Your task to perform on an android device: change timer sound Image 0: 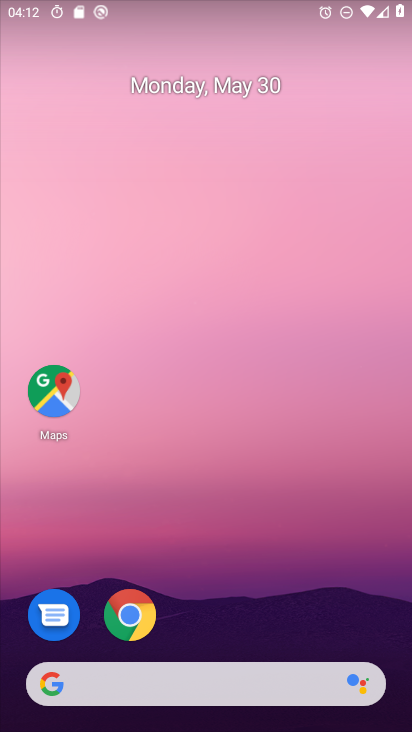
Step 0: drag from (291, 643) to (270, 58)
Your task to perform on an android device: change timer sound Image 1: 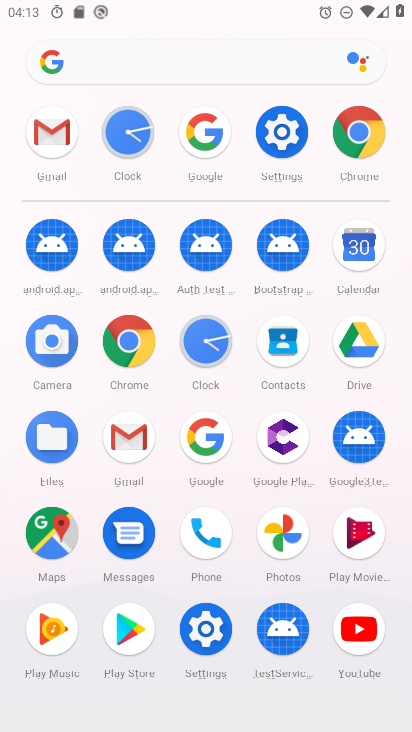
Step 1: click (128, 133)
Your task to perform on an android device: change timer sound Image 2: 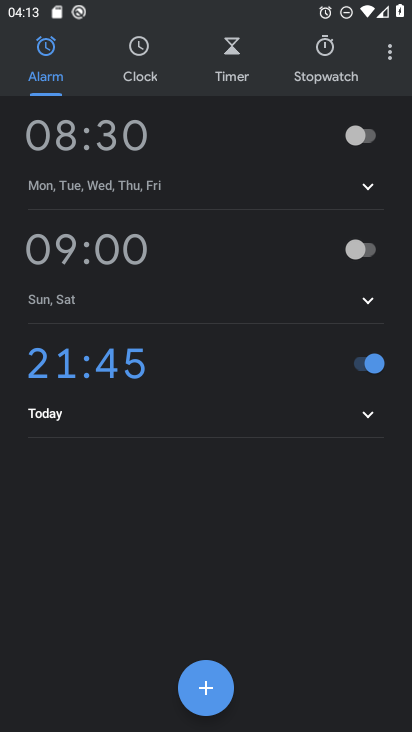
Step 2: click (390, 55)
Your task to perform on an android device: change timer sound Image 3: 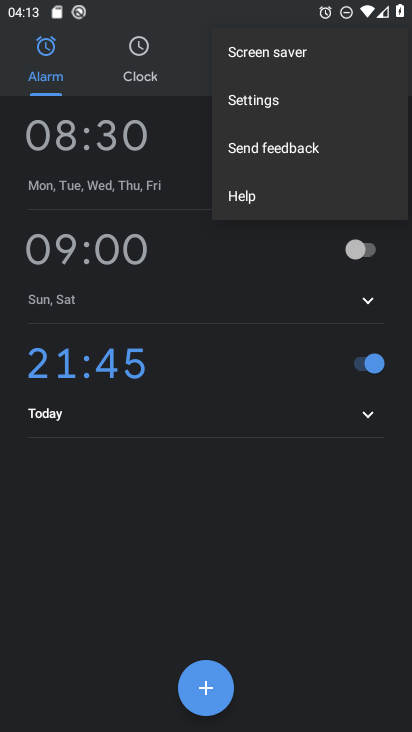
Step 3: click (268, 103)
Your task to perform on an android device: change timer sound Image 4: 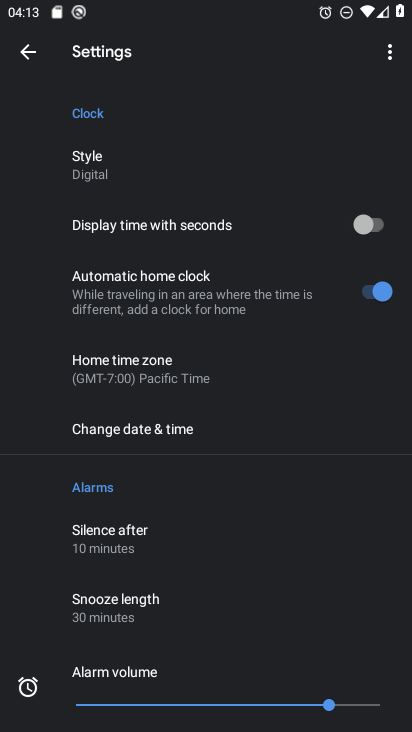
Step 4: drag from (192, 521) to (191, 341)
Your task to perform on an android device: change timer sound Image 5: 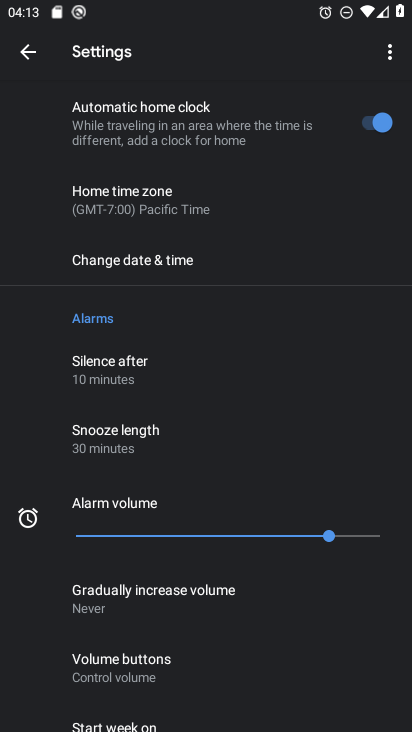
Step 5: drag from (152, 557) to (202, 362)
Your task to perform on an android device: change timer sound Image 6: 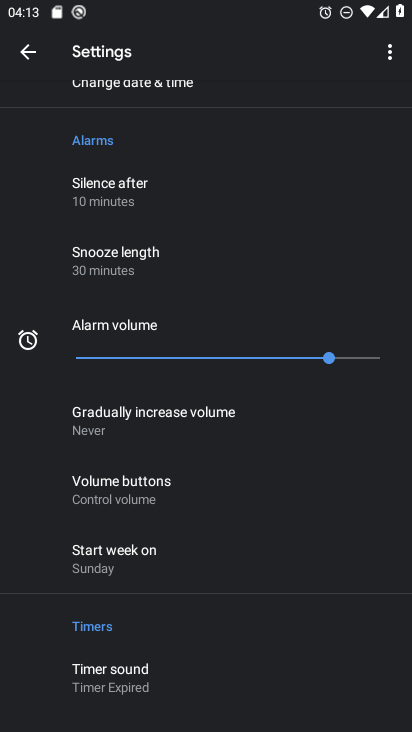
Step 6: drag from (178, 529) to (202, 342)
Your task to perform on an android device: change timer sound Image 7: 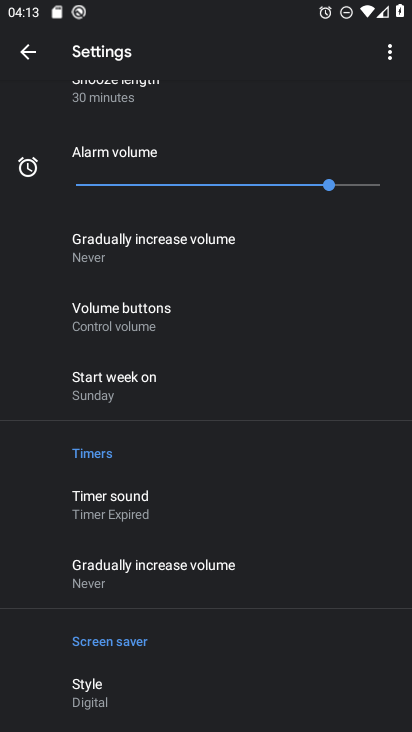
Step 7: click (134, 503)
Your task to perform on an android device: change timer sound Image 8: 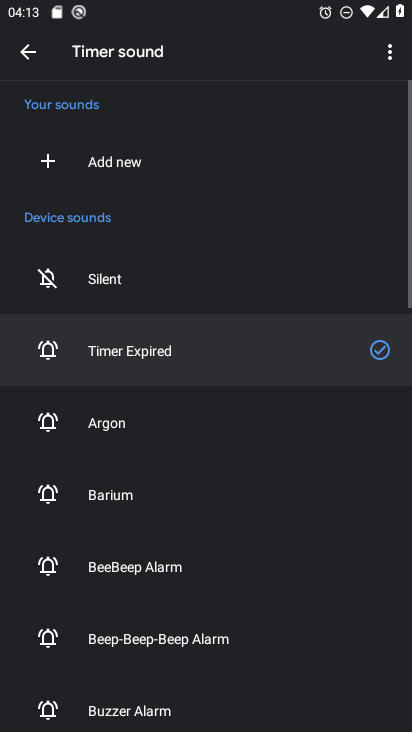
Step 8: drag from (151, 451) to (172, 355)
Your task to perform on an android device: change timer sound Image 9: 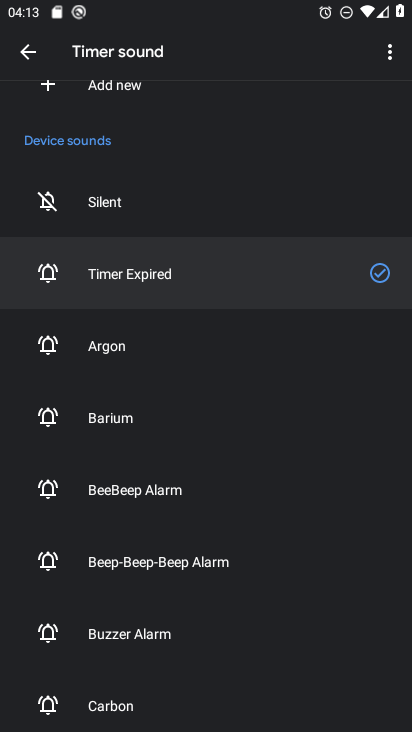
Step 9: drag from (145, 601) to (159, 285)
Your task to perform on an android device: change timer sound Image 10: 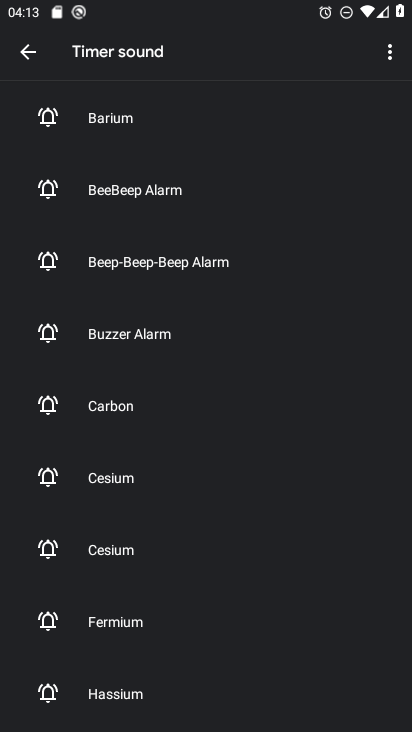
Step 10: drag from (121, 591) to (129, 232)
Your task to perform on an android device: change timer sound Image 11: 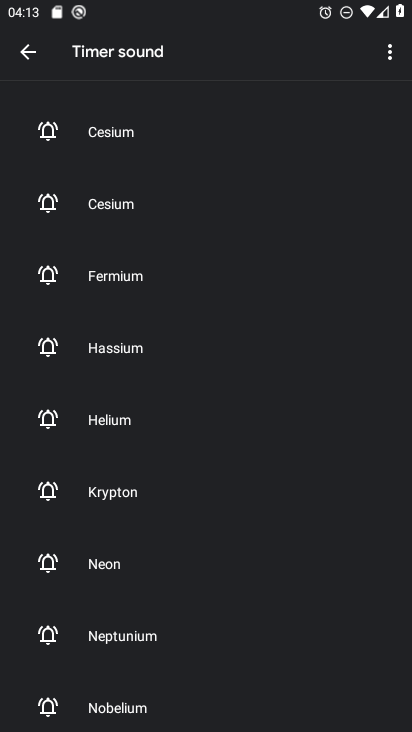
Step 11: click (109, 425)
Your task to perform on an android device: change timer sound Image 12: 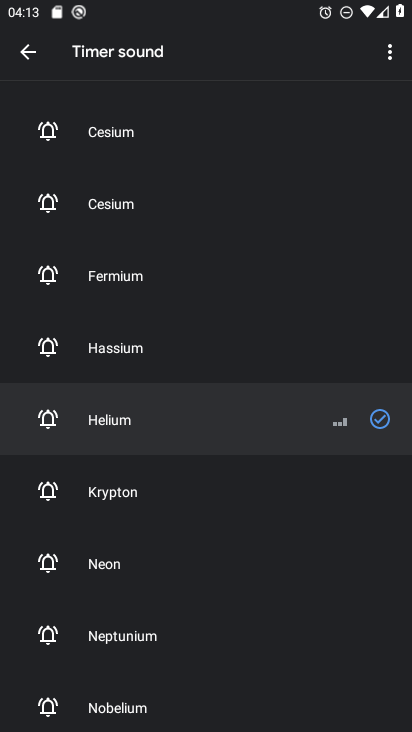
Step 12: task complete